Your task to perform on an android device: set an alarm Image 0: 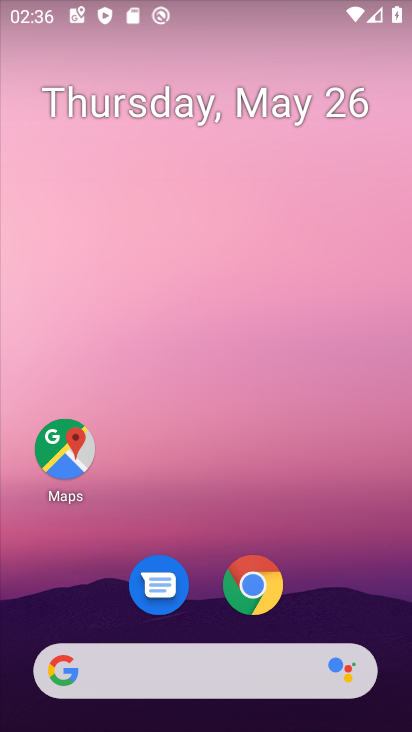
Step 0: drag from (243, 492) to (233, 35)
Your task to perform on an android device: set an alarm Image 1: 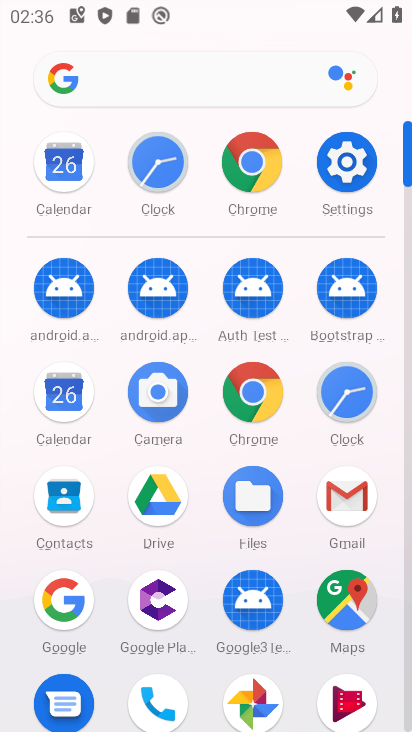
Step 1: click (163, 159)
Your task to perform on an android device: set an alarm Image 2: 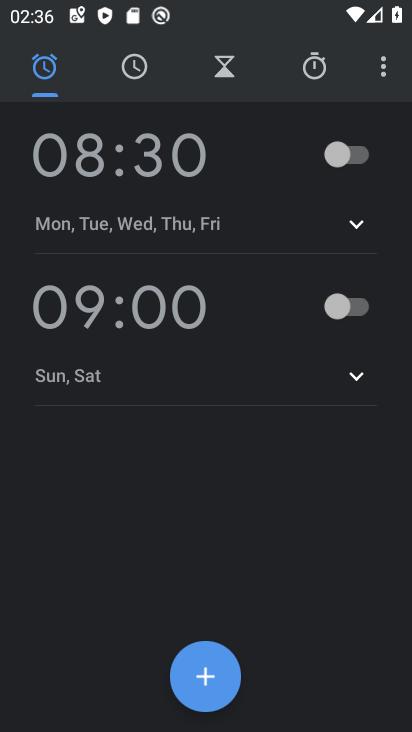
Step 2: click (211, 674)
Your task to perform on an android device: set an alarm Image 3: 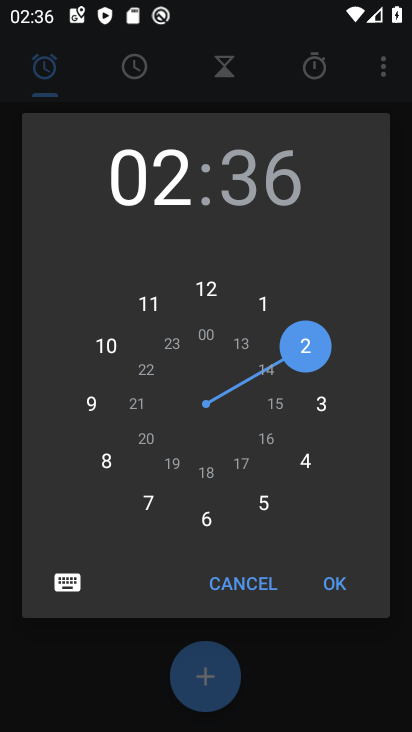
Step 3: click (257, 194)
Your task to perform on an android device: set an alarm Image 4: 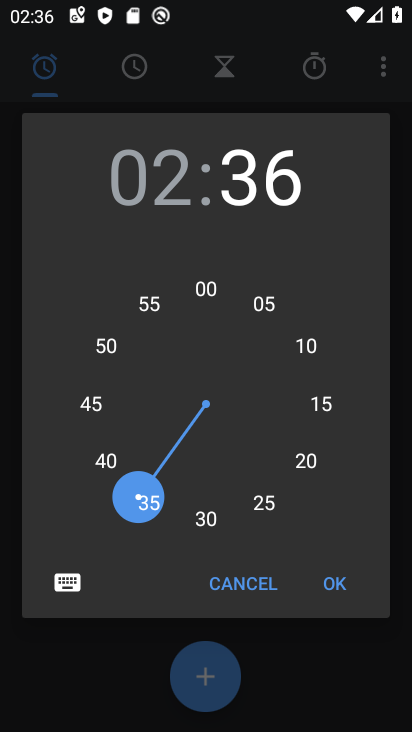
Step 4: click (210, 289)
Your task to perform on an android device: set an alarm Image 5: 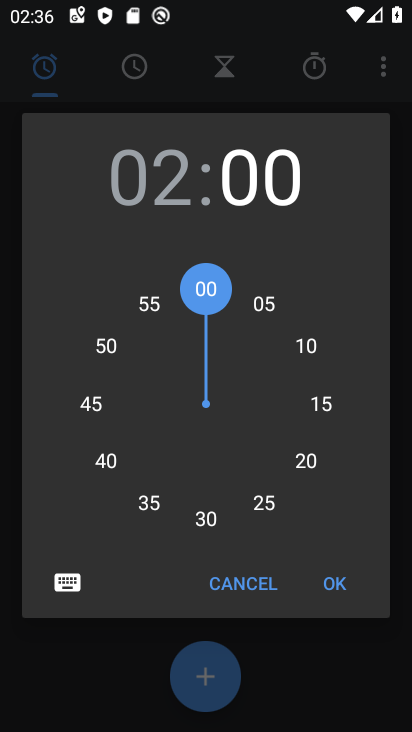
Step 5: click (331, 582)
Your task to perform on an android device: set an alarm Image 6: 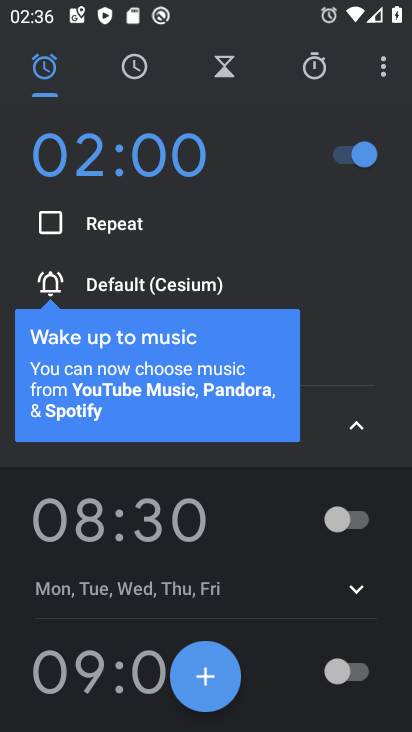
Step 6: task complete